Your task to perform on an android device: read, delete, or share a saved page in the chrome app Image 0: 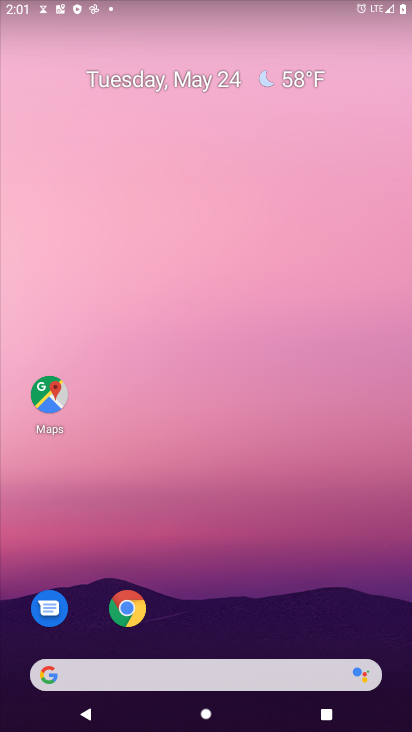
Step 0: press home button
Your task to perform on an android device: read, delete, or share a saved page in the chrome app Image 1: 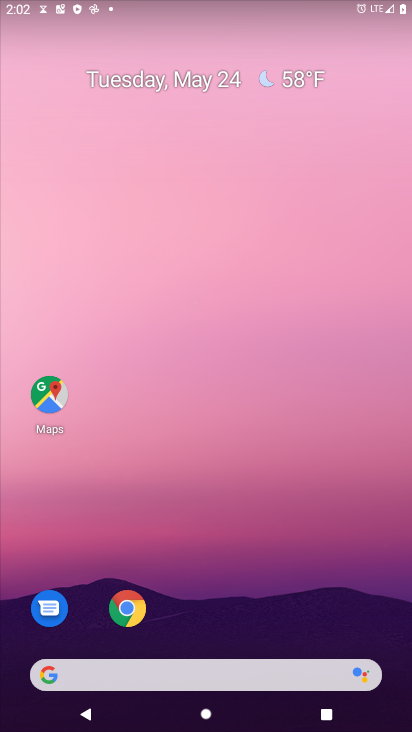
Step 1: drag from (242, 692) to (198, 182)
Your task to perform on an android device: read, delete, or share a saved page in the chrome app Image 2: 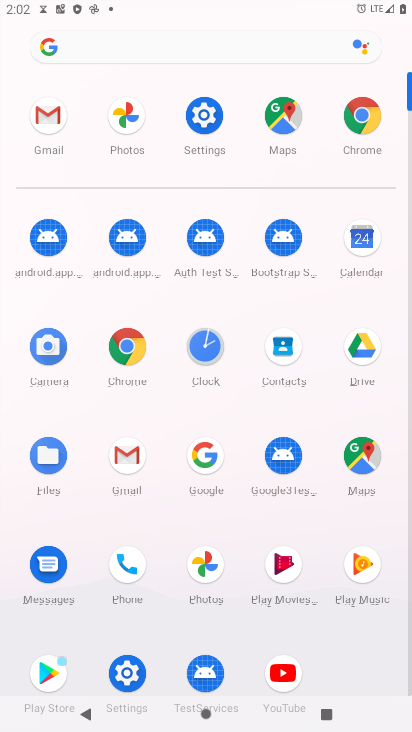
Step 2: click (373, 121)
Your task to perform on an android device: read, delete, or share a saved page in the chrome app Image 3: 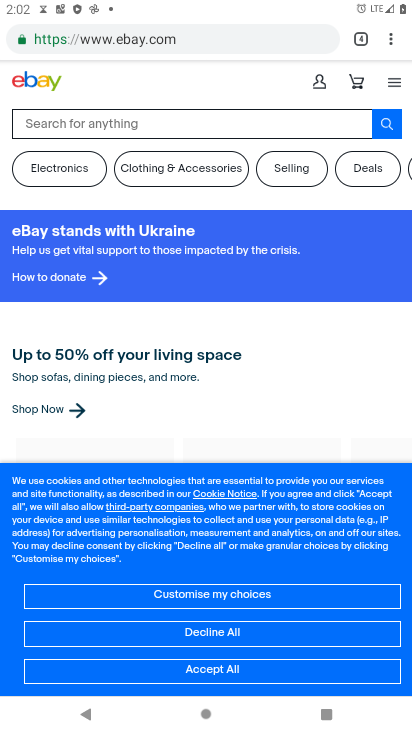
Step 3: click (388, 51)
Your task to perform on an android device: read, delete, or share a saved page in the chrome app Image 4: 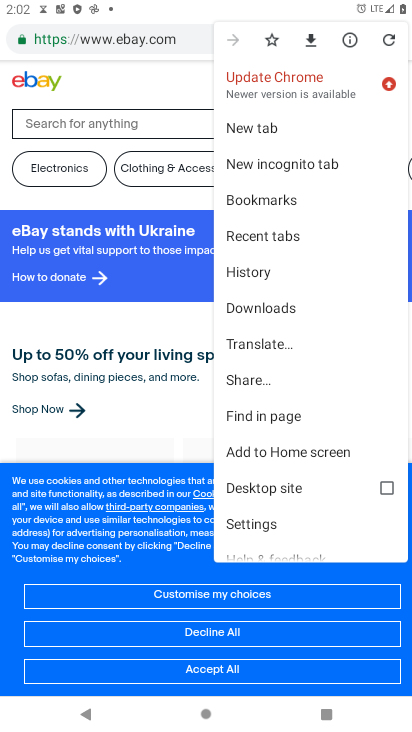
Step 4: click (263, 376)
Your task to perform on an android device: read, delete, or share a saved page in the chrome app Image 5: 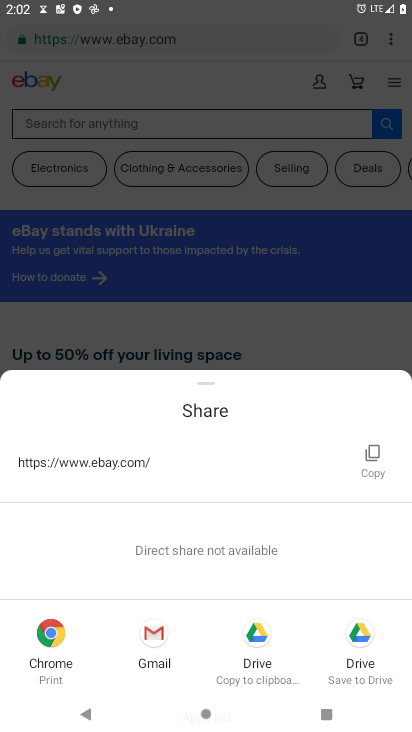
Step 5: task complete